Your task to perform on an android device: Toggle the flashlight Image 0: 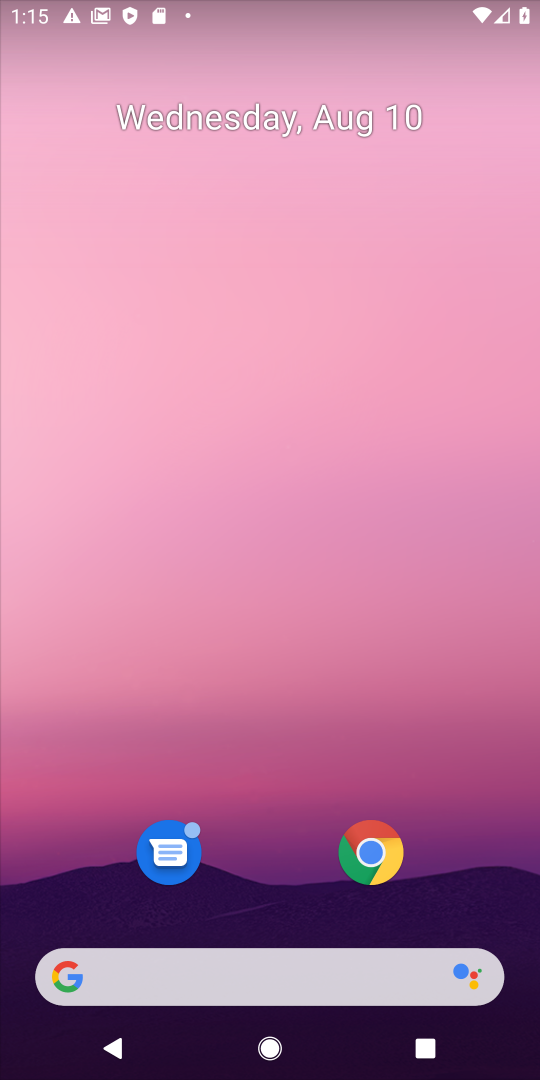
Step 0: press home button
Your task to perform on an android device: Toggle the flashlight Image 1: 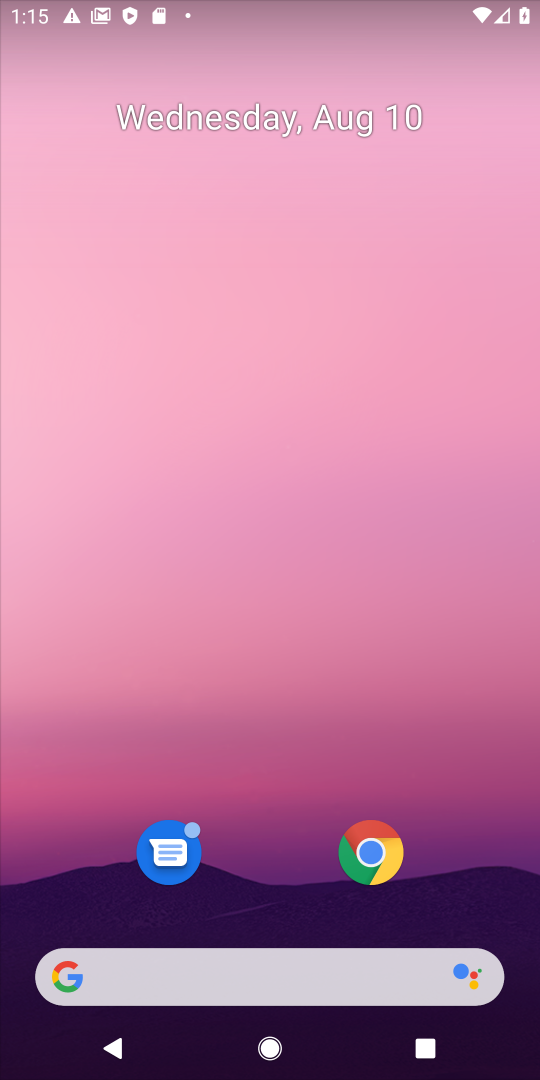
Step 1: drag from (267, 730) to (266, 7)
Your task to perform on an android device: Toggle the flashlight Image 2: 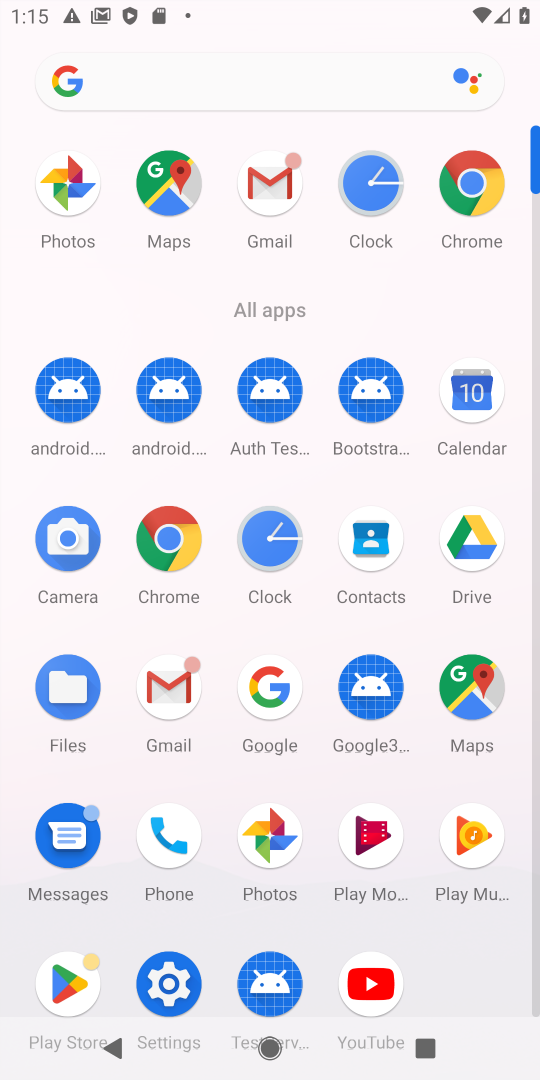
Step 2: click (175, 995)
Your task to perform on an android device: Toggle the flashlight Image 3: 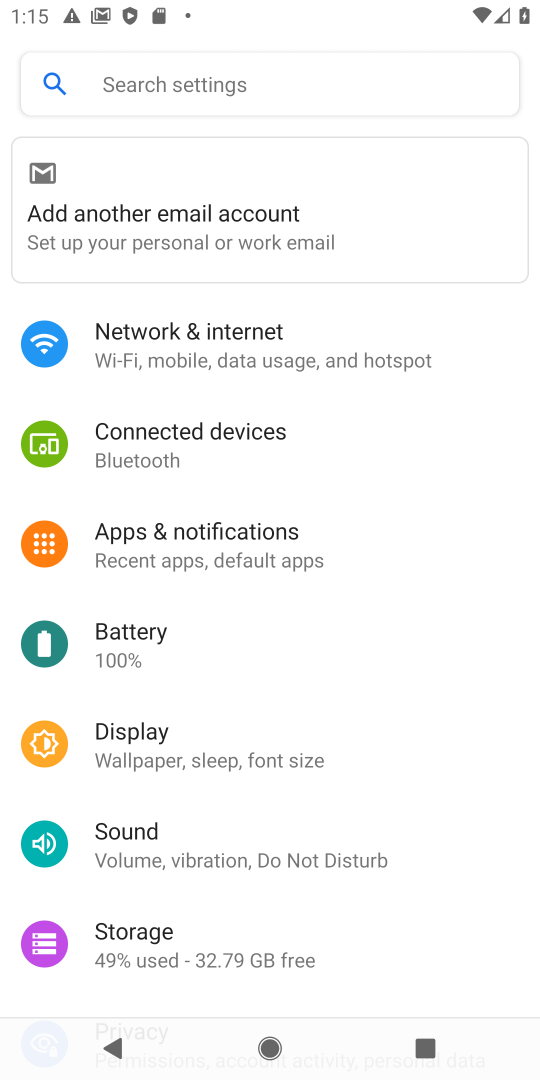
Step 3: click (145, 741)
Your task to perform on an android device: Toggle the flashlight Image 4: 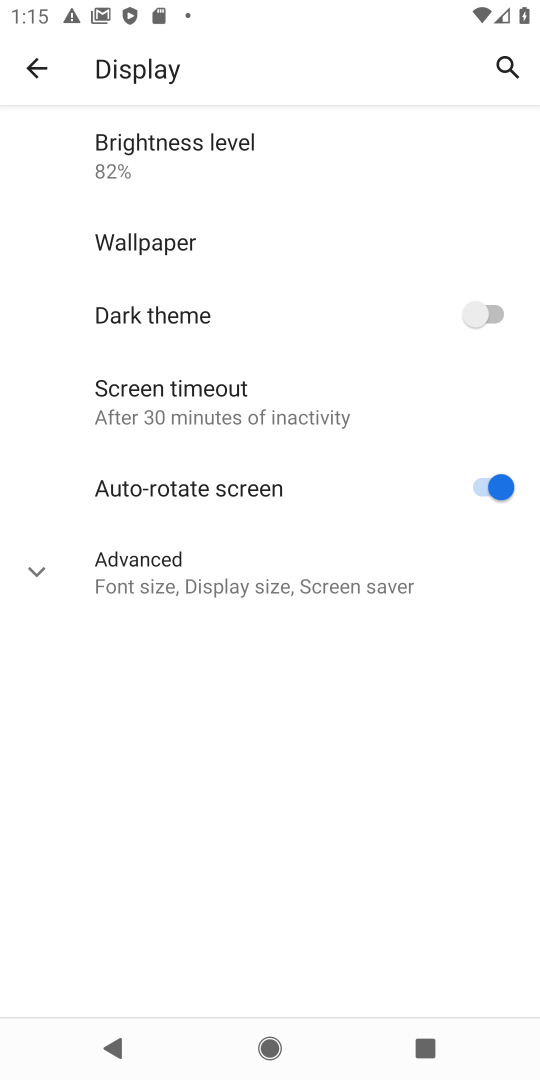
Step 4: click (242, 382)
Your task to perform on an android device: Toggle the flashlight Image 5: 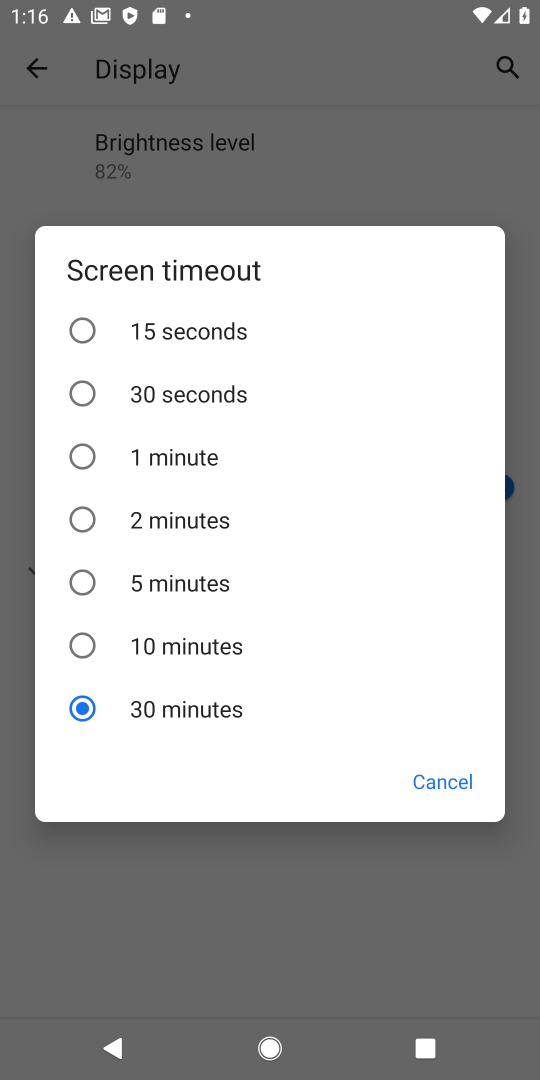
Step 5: task complete